Your task to perform on an android device: Show me the alarms in the clock app Image 0: 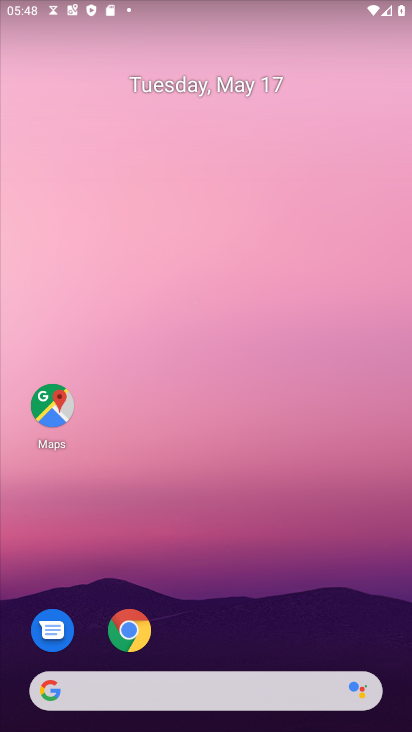
Step 0: drag from (270, 661) to (292, 240)
Your task to perform on an android device: Show me the alarms in the clock app Image 1: 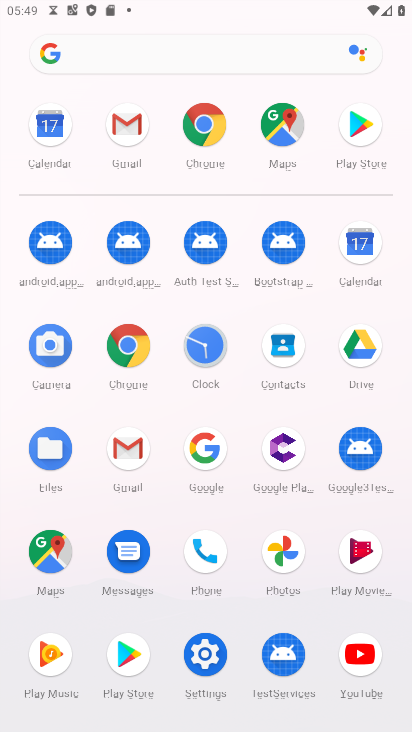
Step 1: click (201, 340)
Your task to perform on an android device: Show me the alarms in the clock app Image 2: 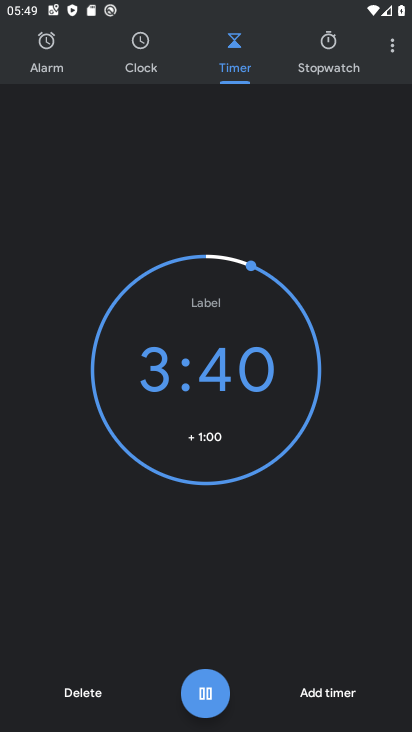
Step 2: click (50, 63)
Your task to perform on an android device: Show me the alarms in the clock app Image 3: 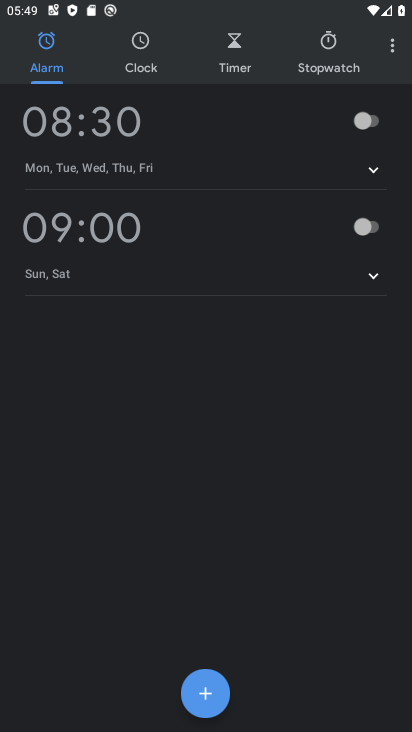
Step 3: task complete